Your task to perform on an android device: Open the calendar and show me this week's events? Image 0: 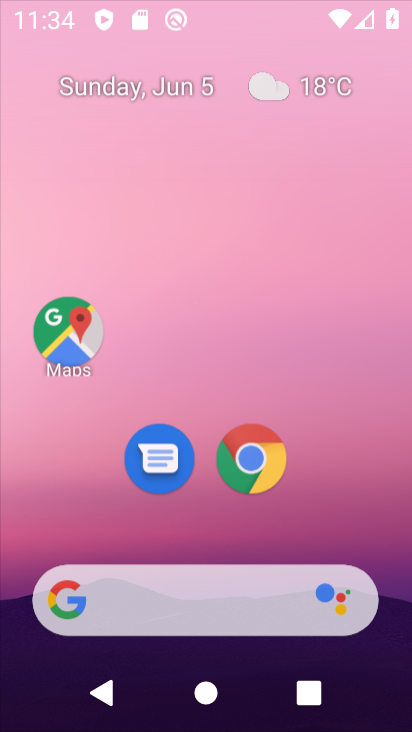
Step 0: press back button
Your task to perform on an android device: Open the calendar and show me this week's events? Image 1: 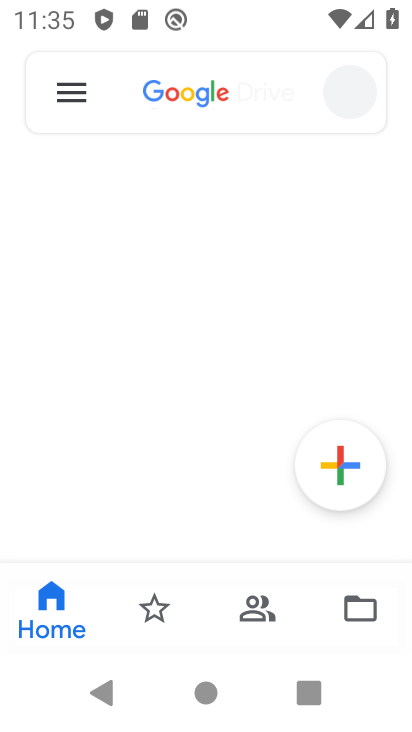
Step 1: press home button
Your task to perform on an android device: Open the calendar and show me this week's events? Image 2: 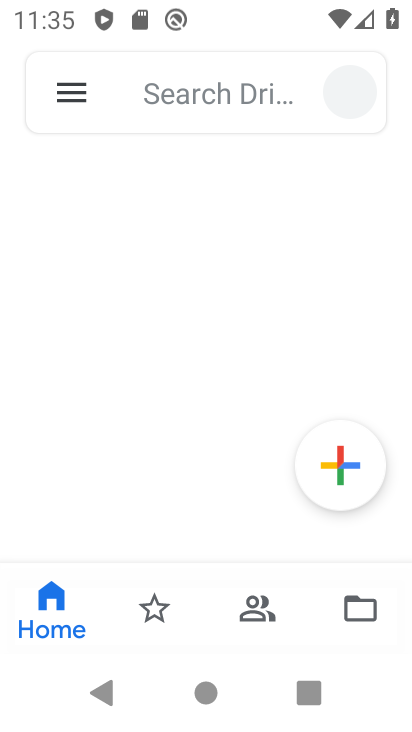
Step 2: click (202, 15)
Your task to perform on an android device: Open the calendar and show me this week's events? Image 3: 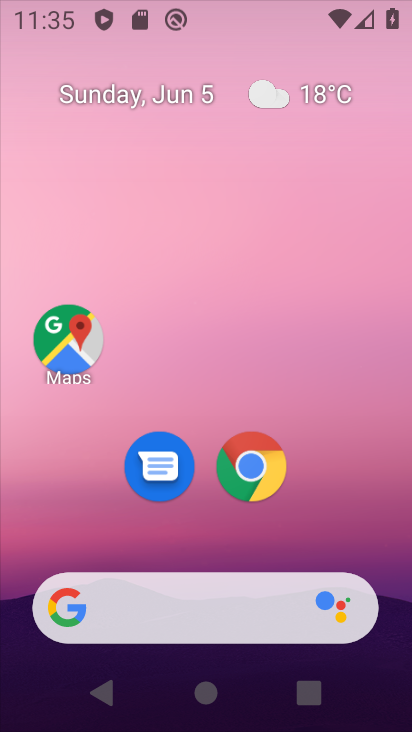
Step 3: press back button
Your task to perform on an android device: Open the calendar and show me this week's events? Image 4: 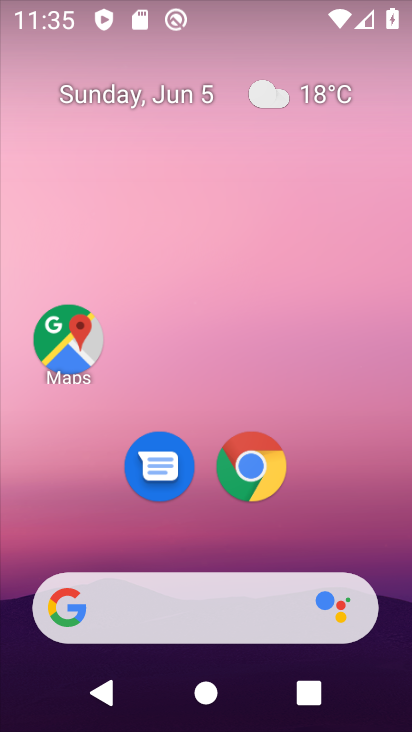
Step 4: drag from (353, 515) to (272, 59)
Your task to perform on an android device: Open the calendar and show me this week's events? Image 5: 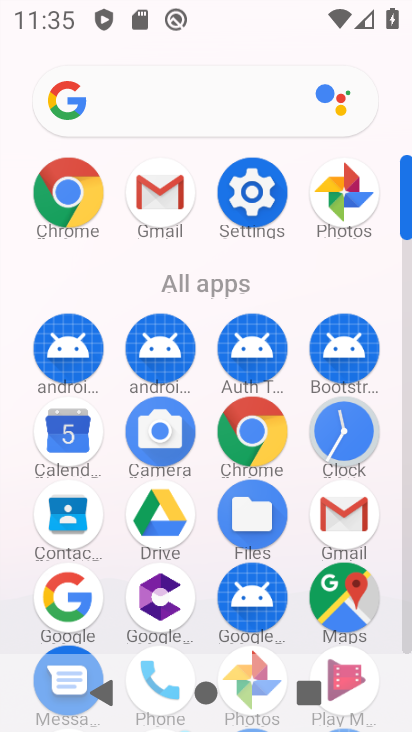
Step 5: click (62, 424)
Your task to perform on an android device: Open the calendar and show me this week's events? Image 6: 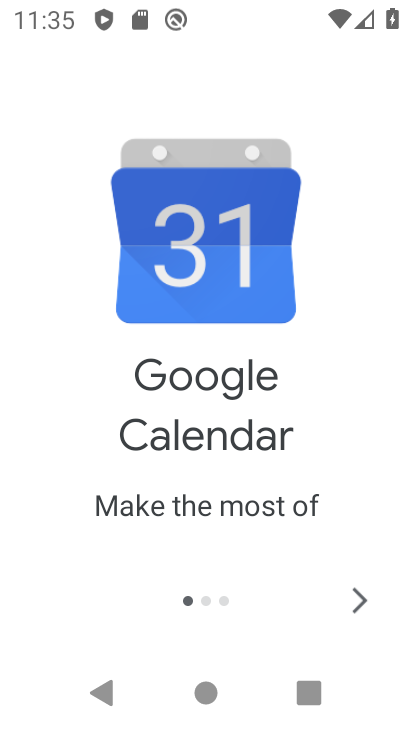
Step 6: click (367, 602)
Your task to perform on an android device: Open the calendar and show me this week's events? Image 7: 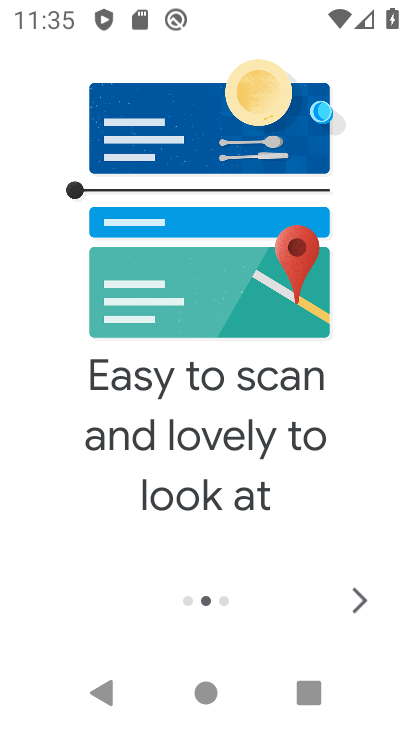
Step 7: click (368, 601)
Your task to perform on an android device: Open the calendar and show me this week's events? Image 8: 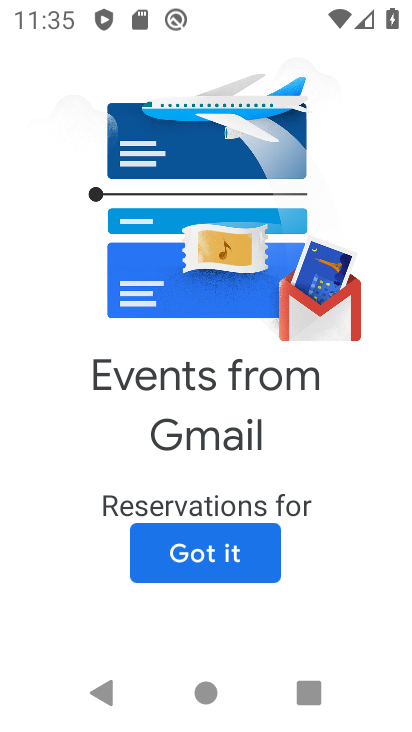
Step 8: click (264, 545)
Your task to perform on an android device: Open the calendar and show me this week's events? Image 9: 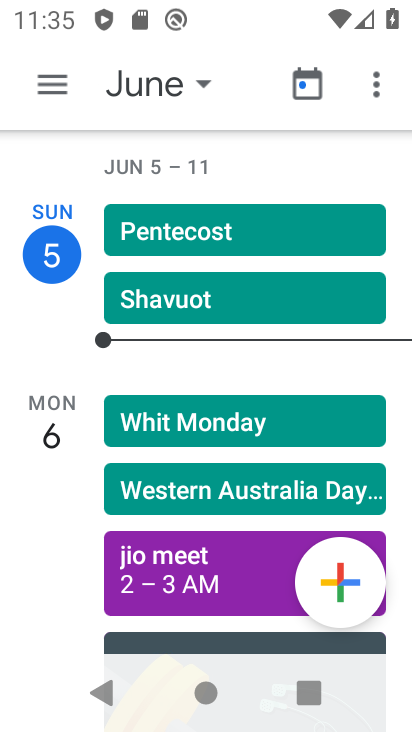
Step 9: click (51, 99)
Your task to perform on an android device: Open the calendar and show me this week's events? Image 10: 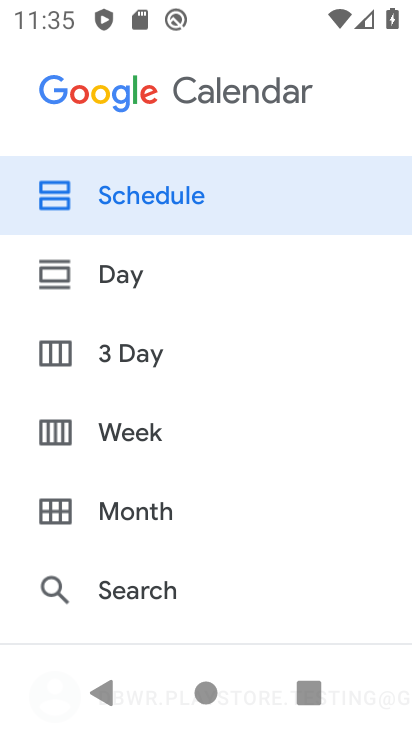
Step 10: click (152, 438)
Your task to perform on an android device: Open the calendar and show me this week's events? Image 11: 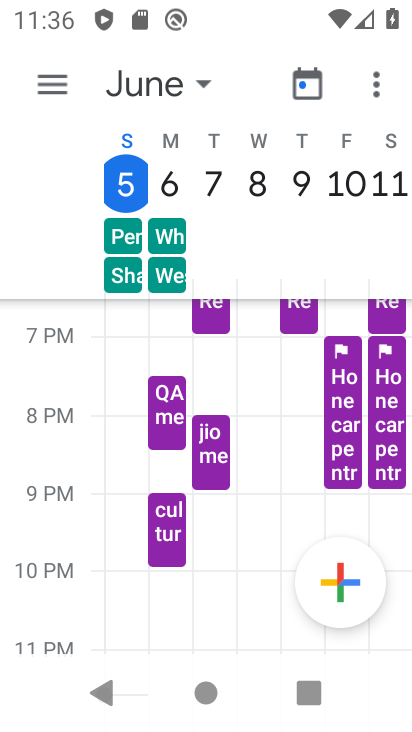
Step 11: task complete